Your task to perform on an android device: empty trash in google photos Image 0: 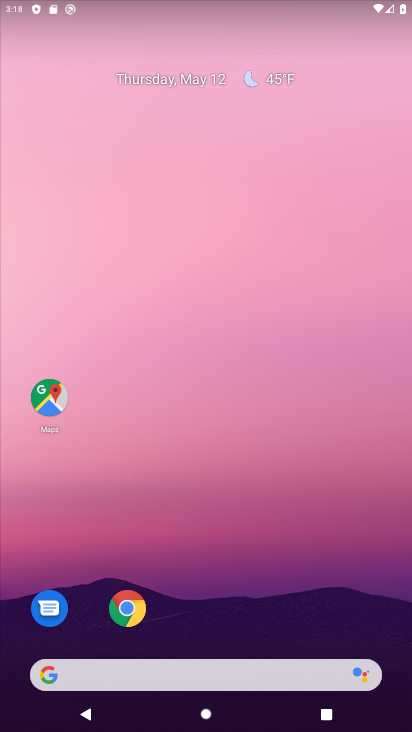
Step 0: drag from (164, 637) to (232, 262)
Your task to perform on an android device: empty trash in google photos Image 1: 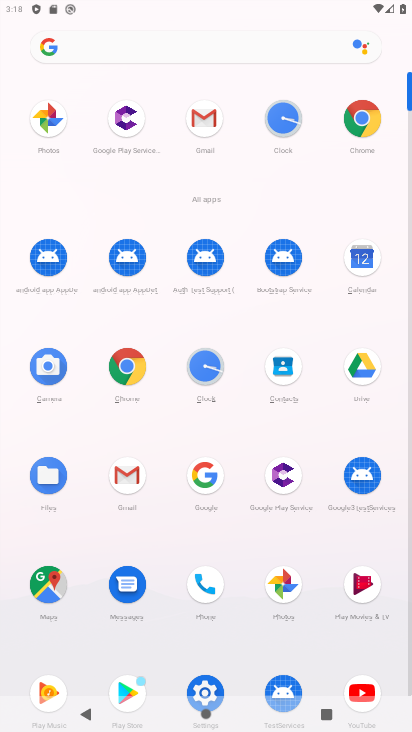
Step 1: click (52, 132)
Your task to perform on an android device: empty trash in google photos Image 2: 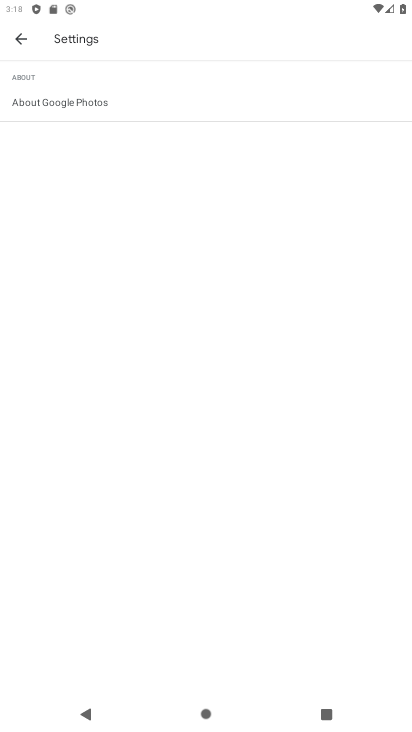
Step 2: click (38, 43)
Your task to perform on an android device: empty trash in google photos Image 3: 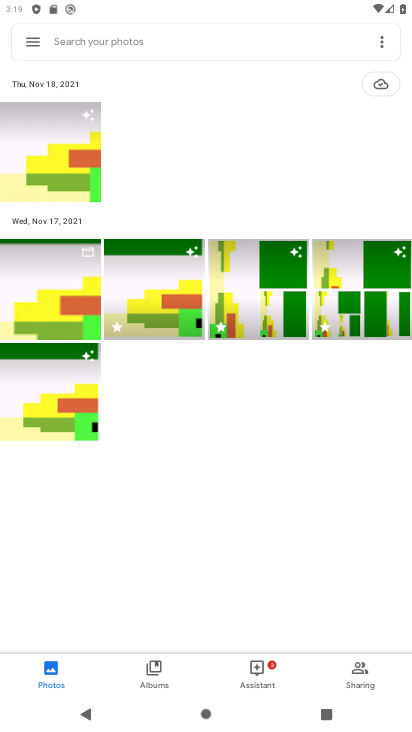
Step 3: click (75, 304)
Your task to perform on an android device: empty trash in google photos Image 4: 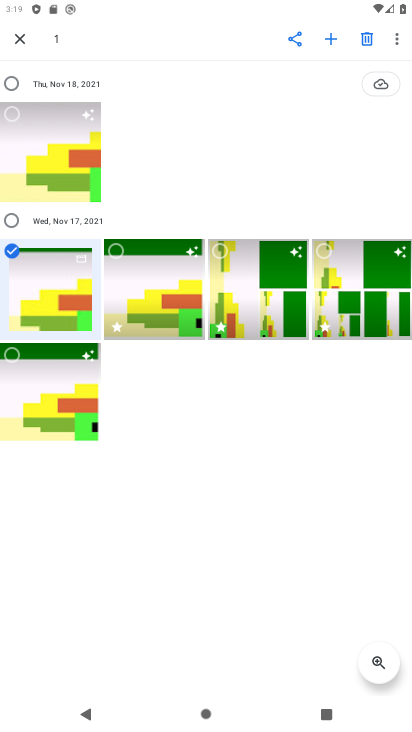
Step 4: click (28, 50)
Your task to perform on an android device: empty trash in google photos Image 5: 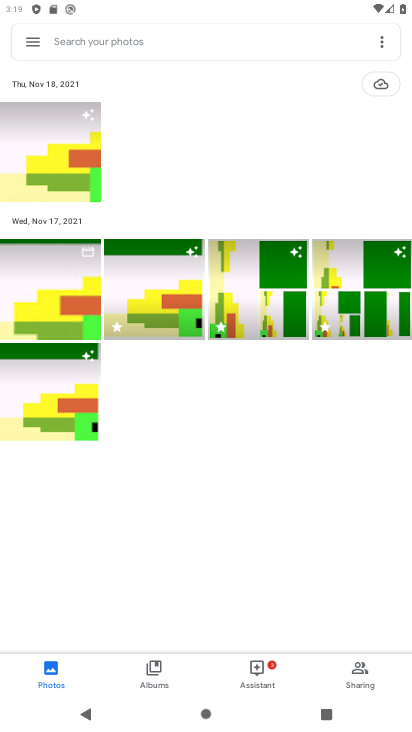
Step 5: click (28, 50)
Your task to perform on an android device: empty trash in google photos Image 6: 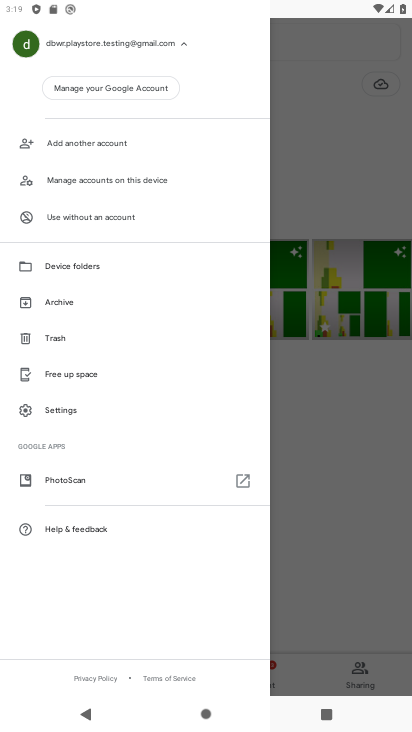
Step 6: click (41, 342)
Your task to perform on an android device: empty trash in google photos Image 7: 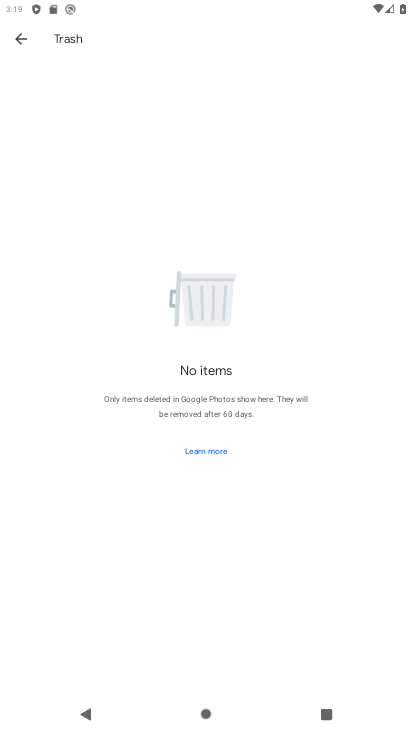
Step 7: task complete